Your task to perform on an android device: Open calendar and show me the third week of next month Image 0: 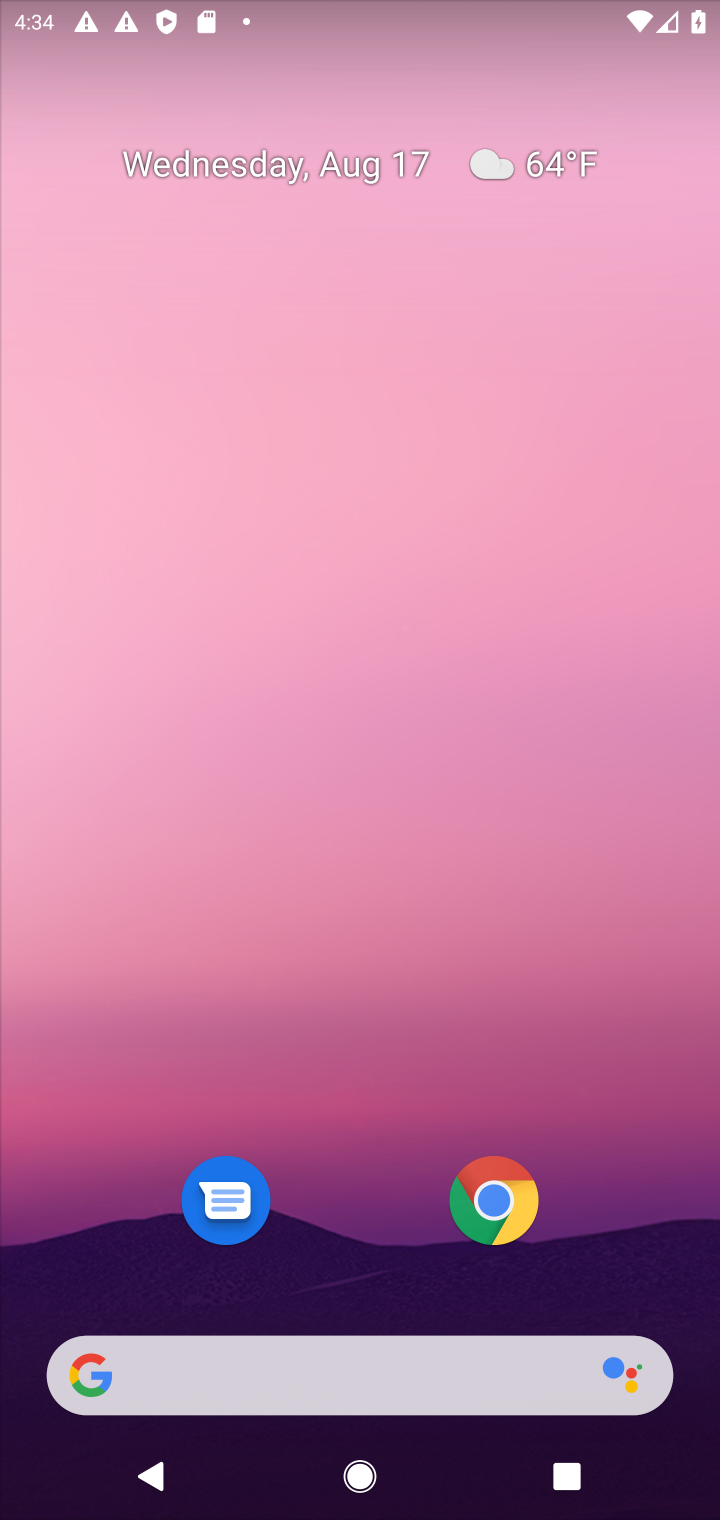
Step 0: drag from (391, 1097) to (396, 217)
Your task to perform on an android device: Open calendar and show me the third week of next month Image 1: 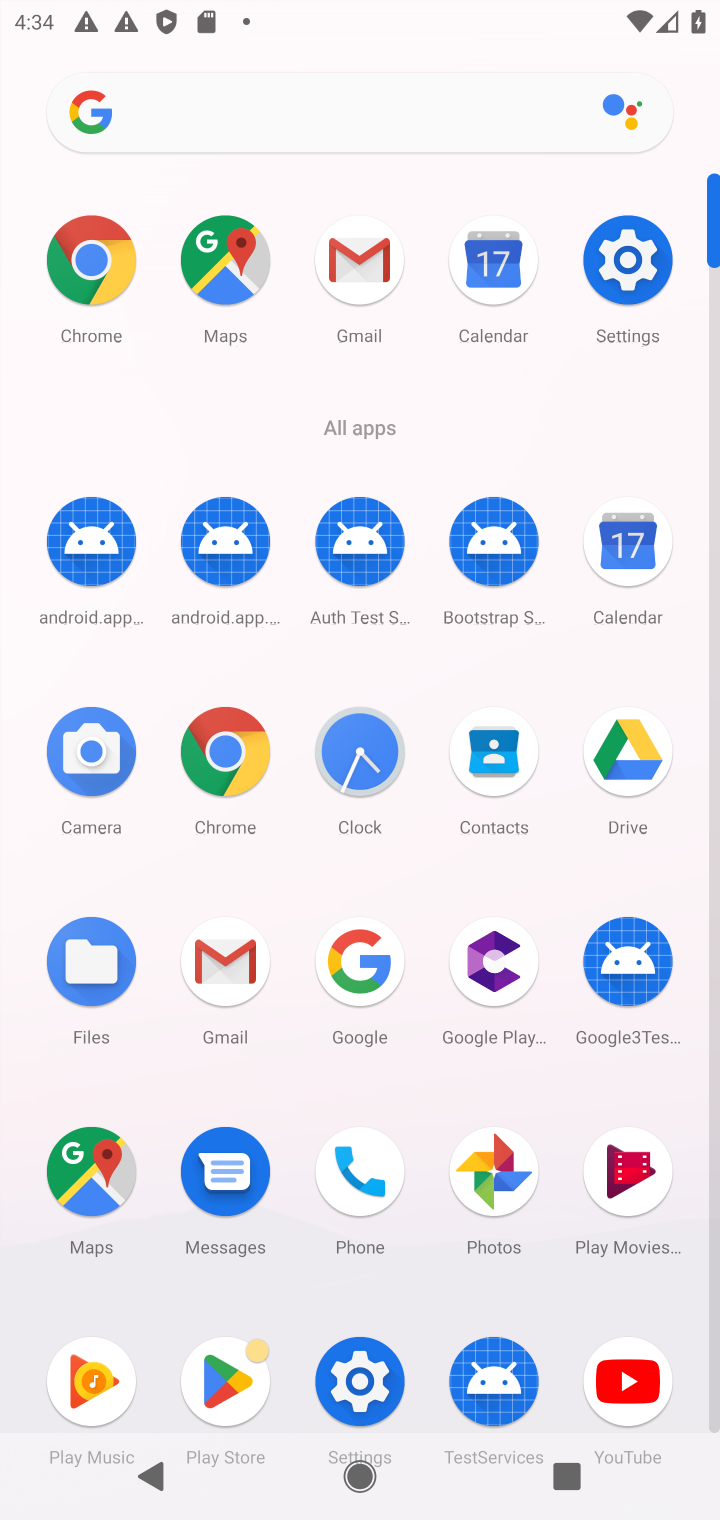
Step 1: click (624, 552)
Your task to perform on an android device: Open calendar and show me the third week of next month Image 2: 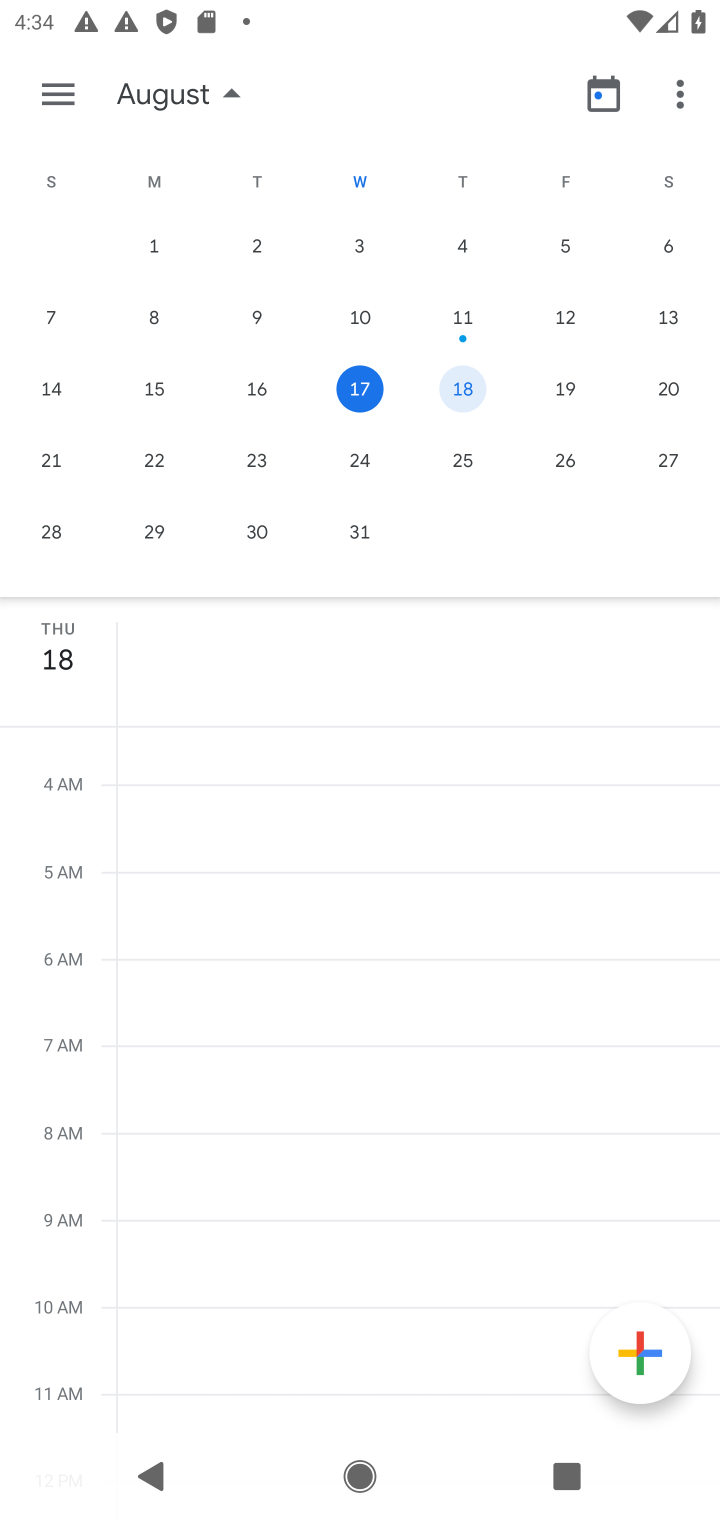
Step 2: drag from (601, 387) to (138, 771)
Your task to perform on an android device: Open calendar and show me the third week of next month Image 3: 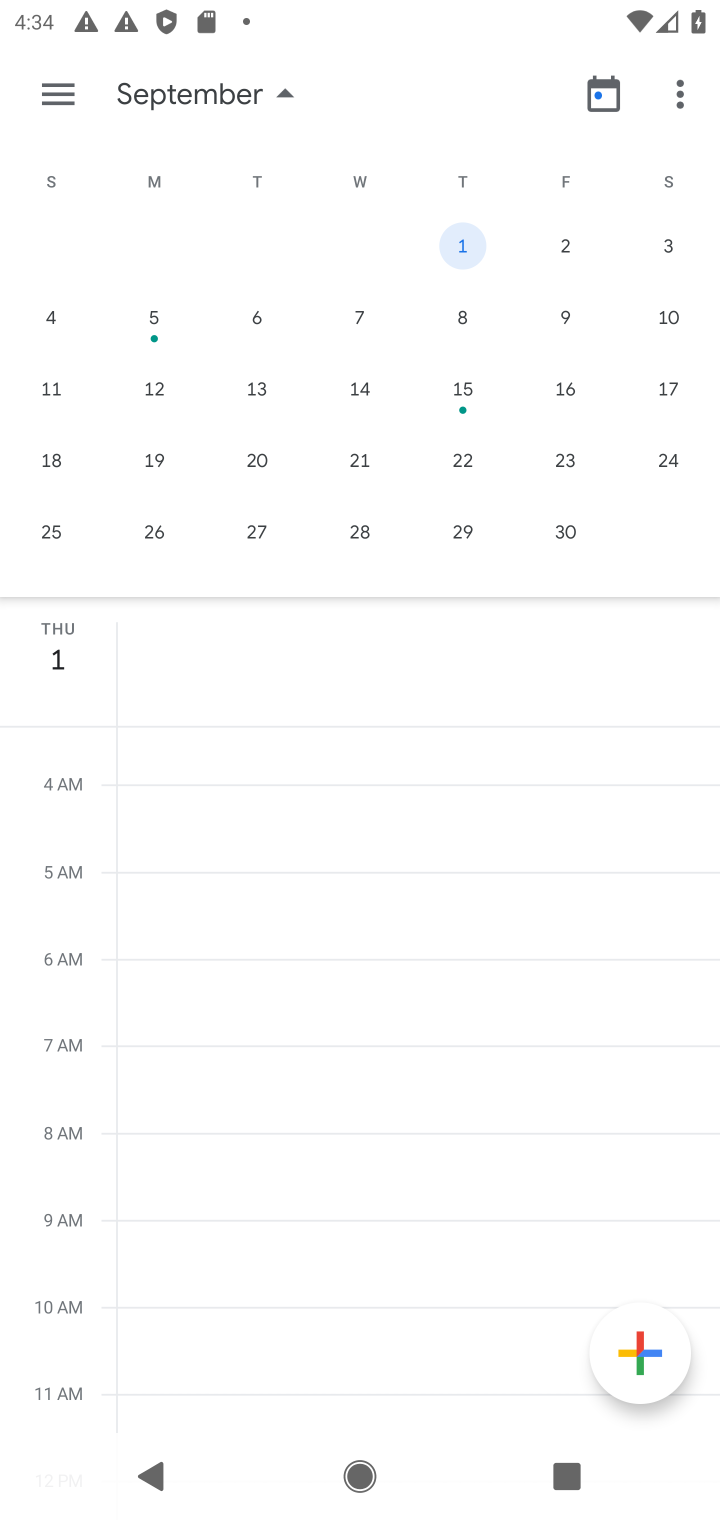
Step 3: click (153, 457)
Your task to perform on an android device: Open calendar and show me the third week of next month Image 4: 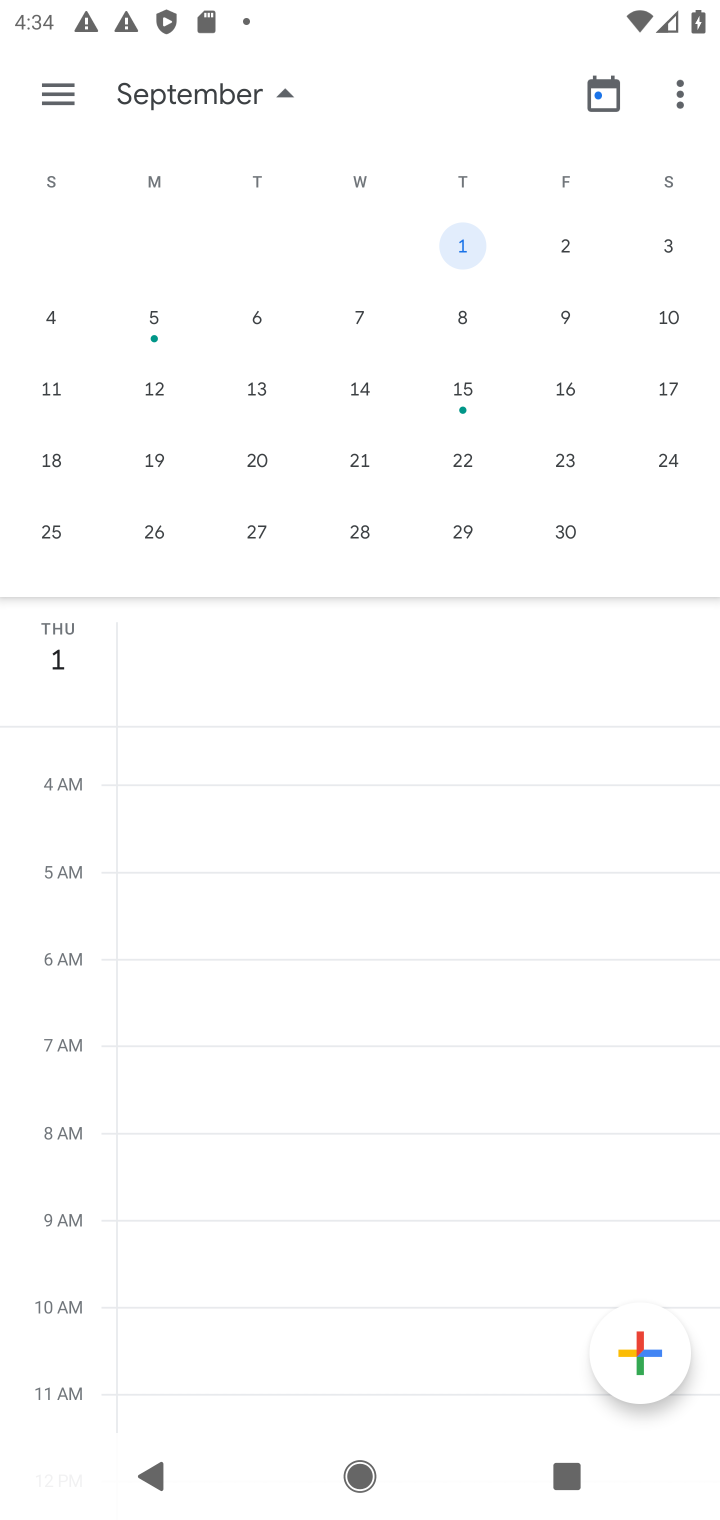
Step 4: click (153, 454)
Your task to perform on an android device: Open calendar and show me the third week of next month Image 5: 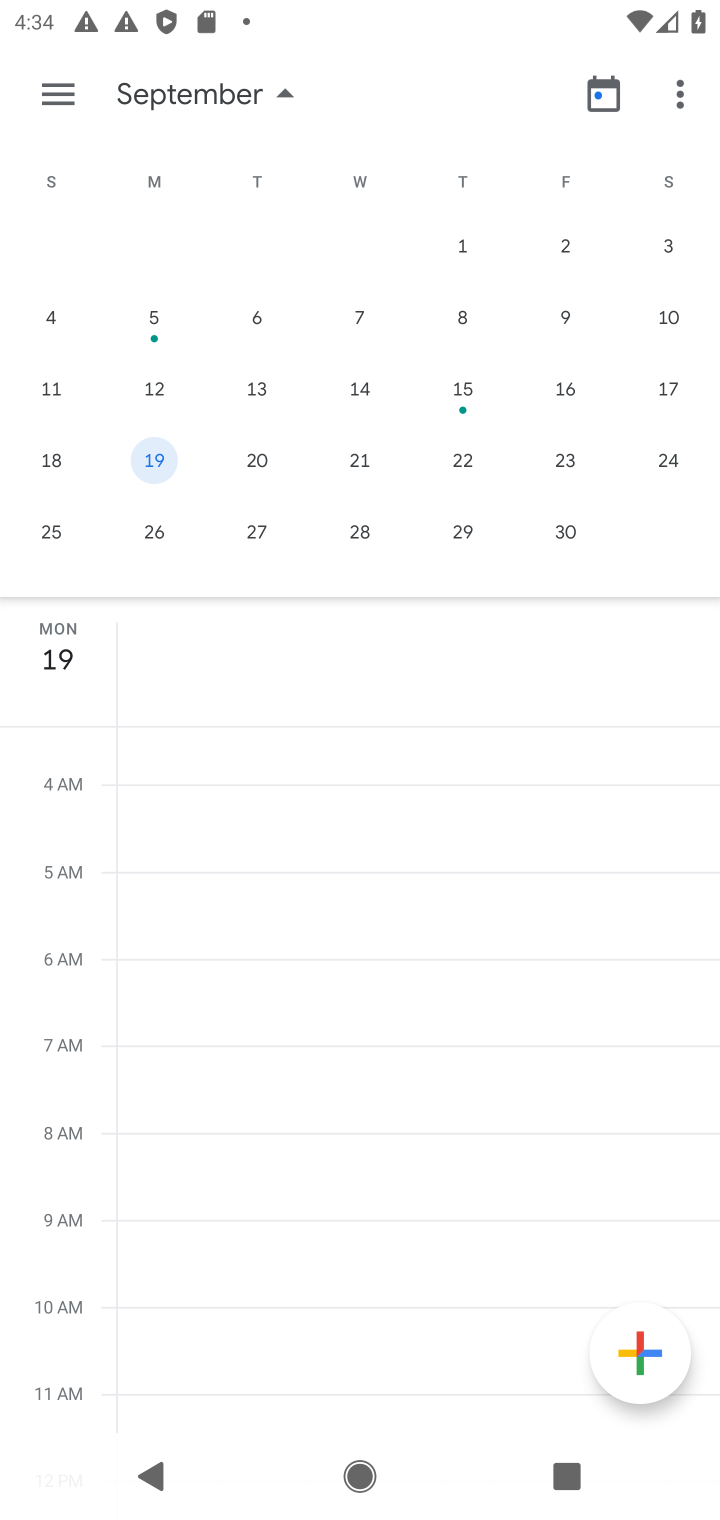
Step 5: click (63, 96)
Your task to perform on an android device: Open calendar and show me the third week of next month Image 6: 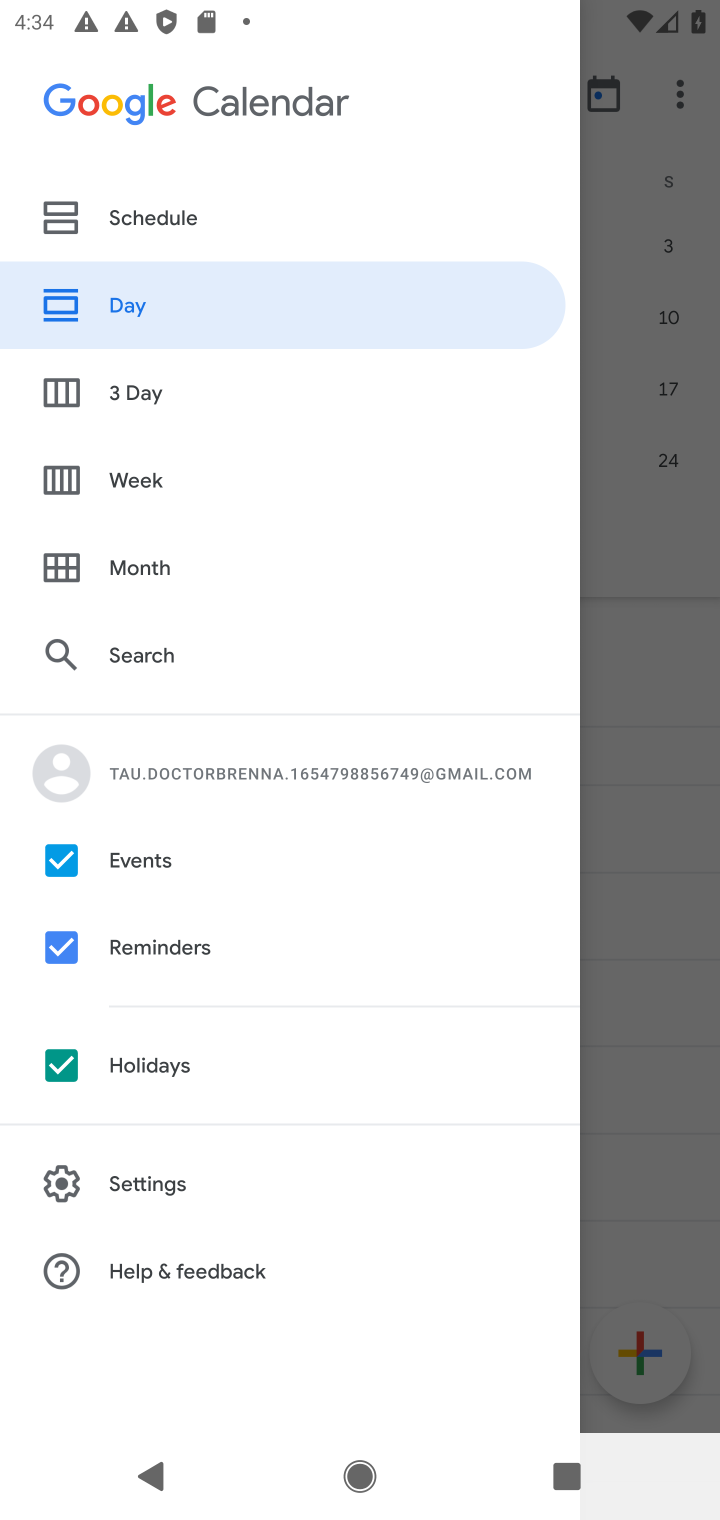
Step 6: click (124, 471)
Your task to perform on an android device: Open calendar and show me the third week of next month Image 7: 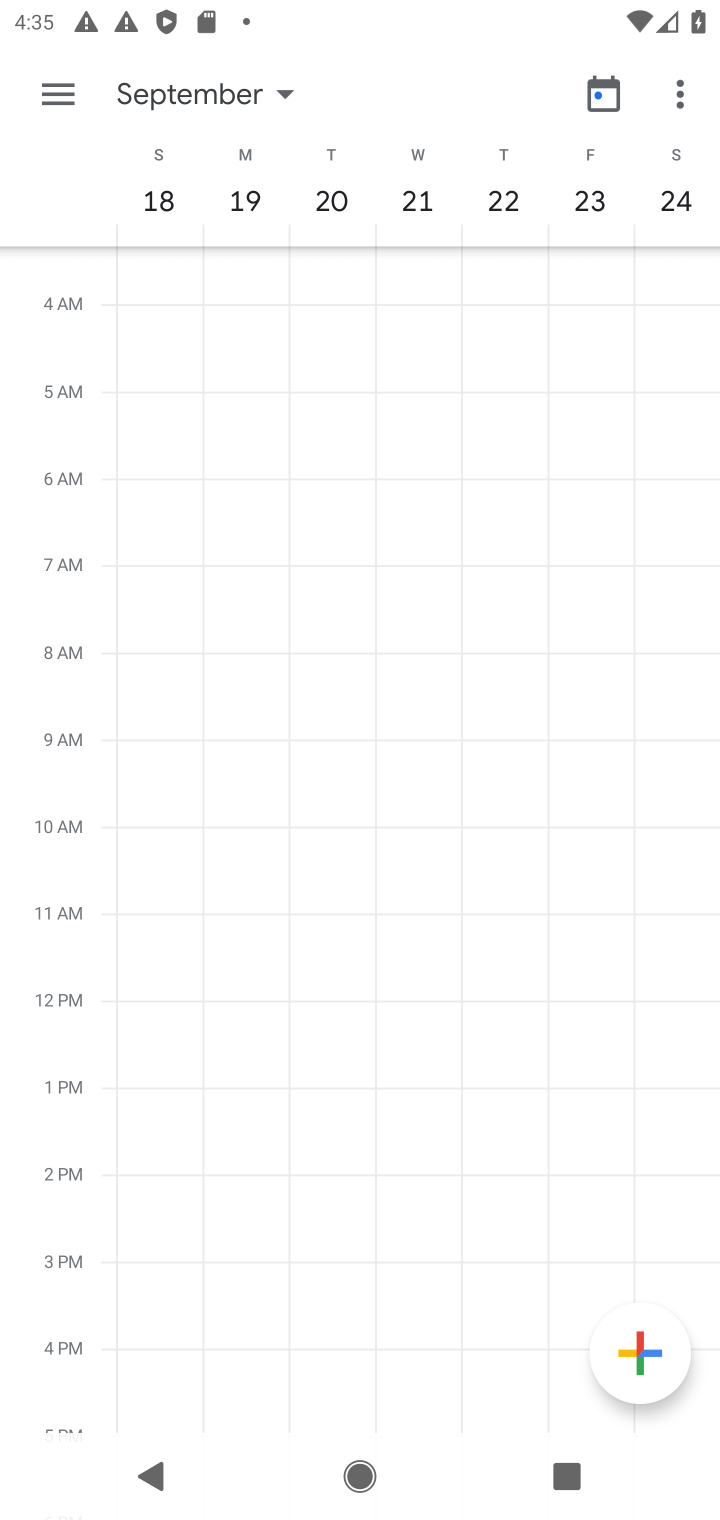
Step 7: task complete